Your task to perform on an android device: turn off smart reply in the gmail app Image 0: 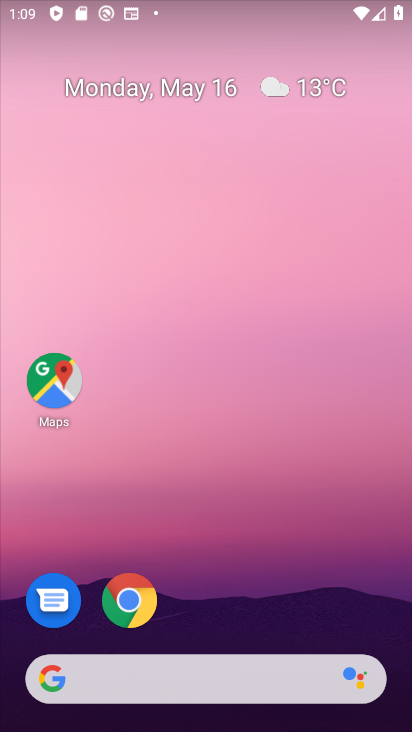
Step 0: drag from (252, 597) to (56, 41)
Your task to perform on an android device: turn off smart reply in the gmail app Image 1: 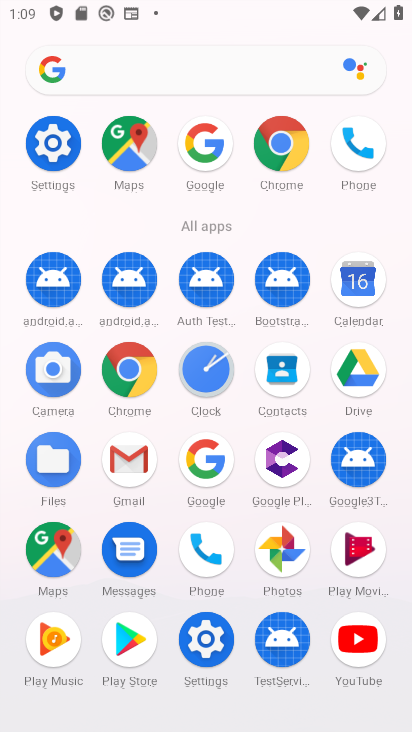
Step 1: click (135, 470)
Your task to perform on an android device: turn off smart reply in the gmail app Image 2: 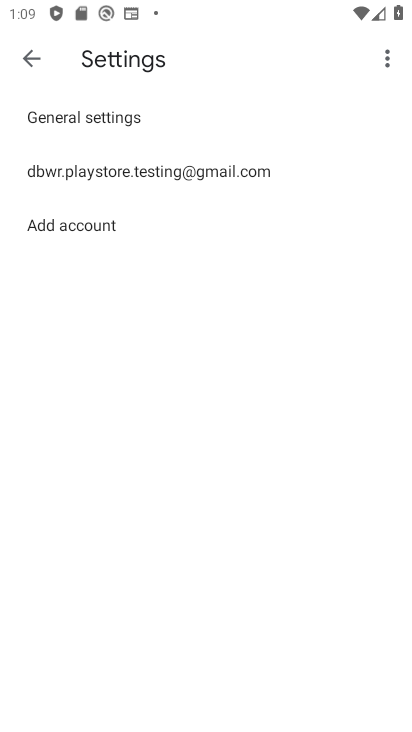
Step 2: click (80, 176)
Your task to perform on an android device: turn off smart reply in the gmail app Image 3: 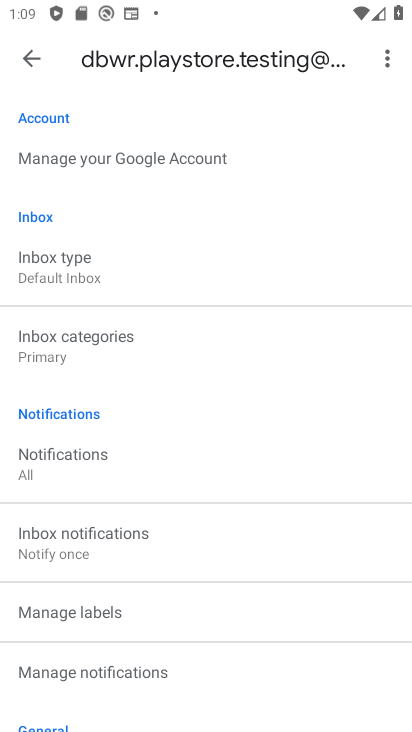
Step 3: drag from (174, 636) to (146, 218)
Your task to perform on an android device: turn off smart reply in the gmail app Image 4: 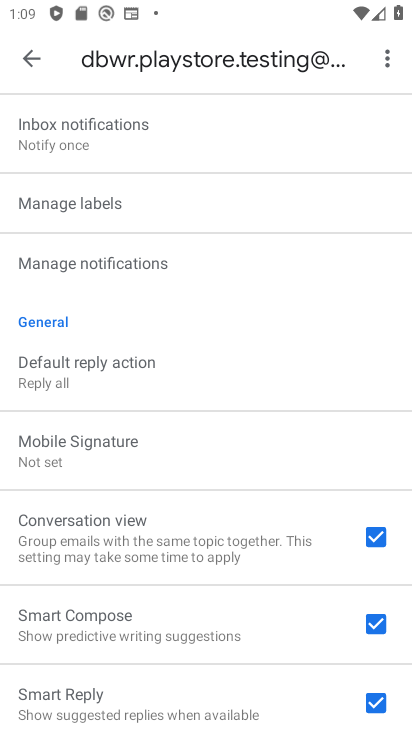
Step 4: drag from (140, 678) to (128, 485)
Your task to perform on an android device: turn off smart reply in the gmail app Image 5: 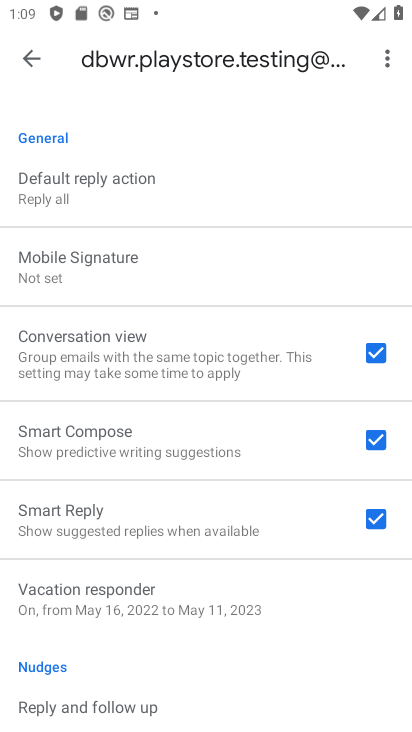
Step 5: click (379, 524)
Your task to perform on an android device: turn off smart reply in the gmail app Image 6: 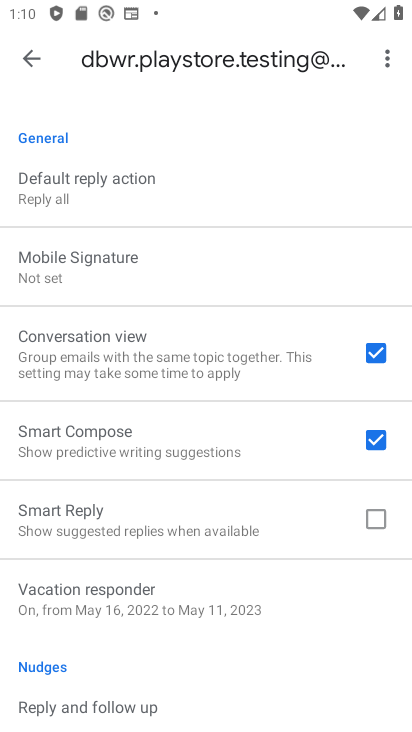
Step 6: task complete